Your task to perform on an android device: turn off data saver in the chrome app Image 0: 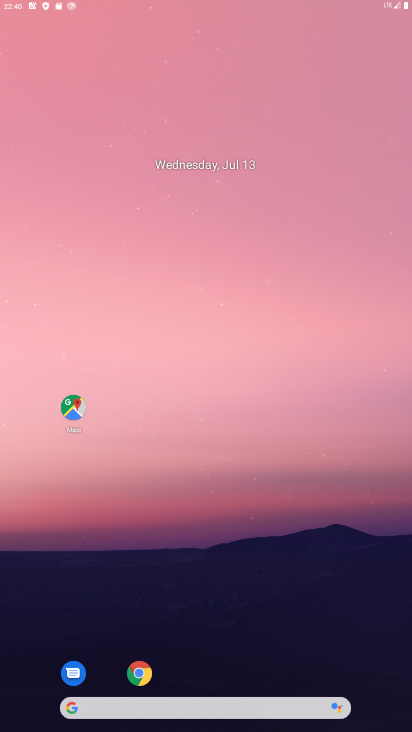
Step 0: click (210, 201)
Your task to perform on an android device: turn off data saver in the chrome app Image 1: 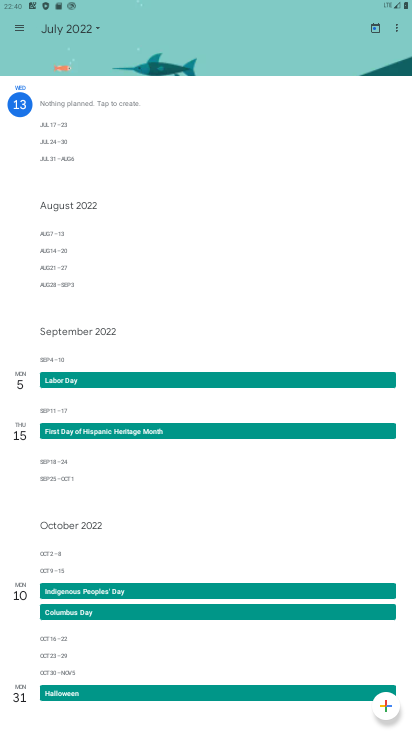
Step 1: press home button
Your task to perform on an android device: turn off data saver in the chrome app Image 2: 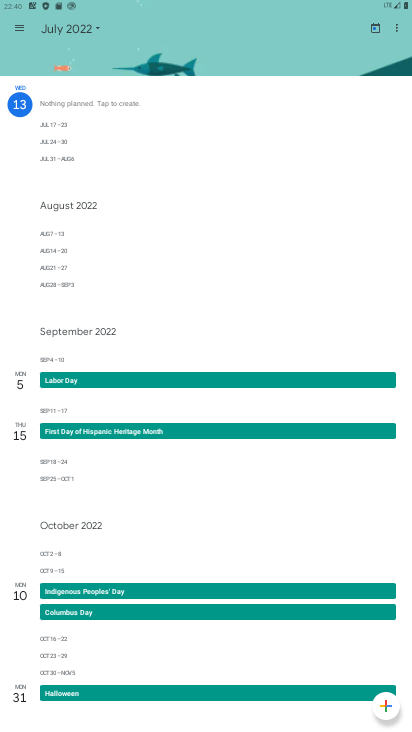
Step 2: press home button
Your task to perform on an android device: turn off data saver in the chrome app Image 3: 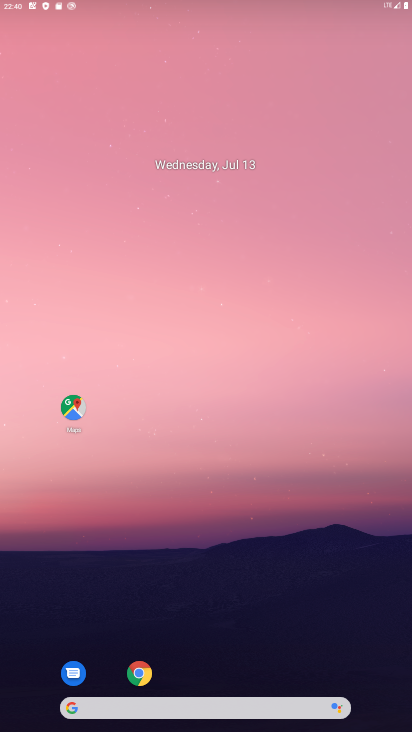
Step 3: drag from (178, 659) to (236, 135)
Your task to perform on an android device: turn off data saver in the chrome app Image 4: 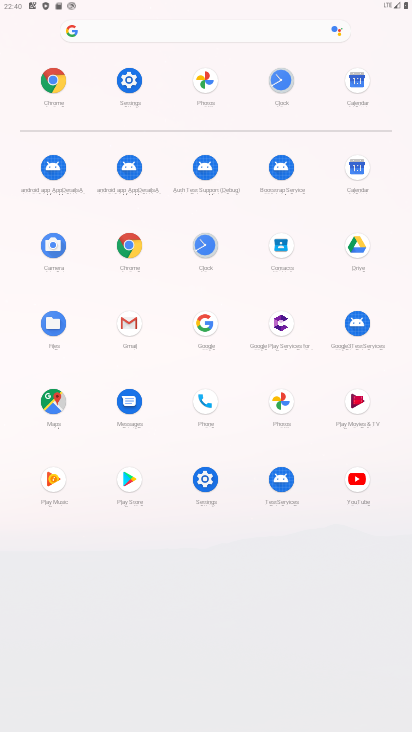
Step 4: click (123, 249)
Your task to perform on an android device: turn off data saver in the chrome app Image 5: 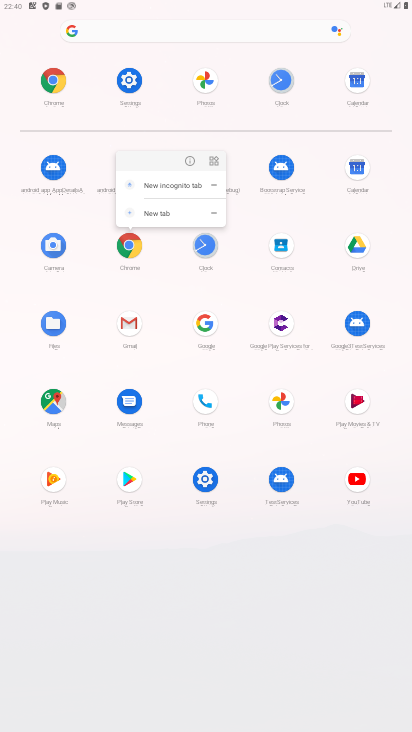
Step 5: click (191, 159)
Your task to perform on an android device: turn off data saver in the chrome app Image 6: 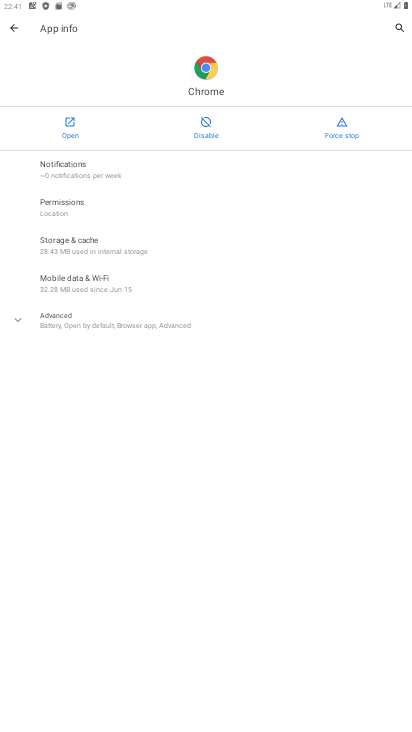
Step 6: click (78, 133)
Your task to perform on an android device: turn off data saver in the chrome app Image 7: 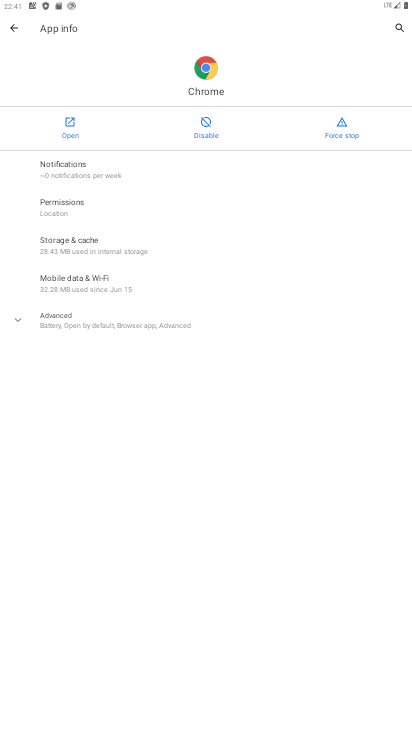
Step 7: click (70, 128)
Your task to perform on an android device: turn off data saver in the chrome app Image 8: 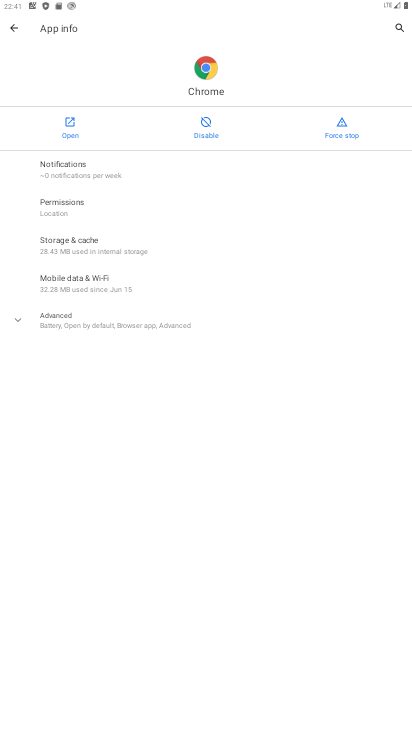
Step 8: click (70, 128)
Your task to perform on an android device: turn off data saver in the chrome app Image 9: 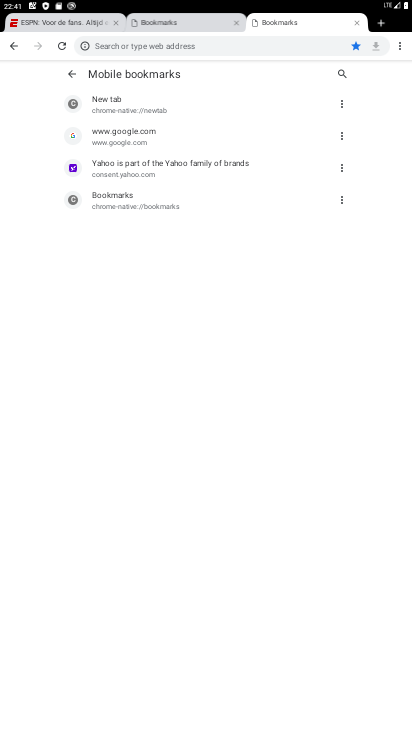
Step 9: drag from (401, 47) to (328, 209)
Your task to perform on an android device: turn off data saver in the chrome app Image 10: 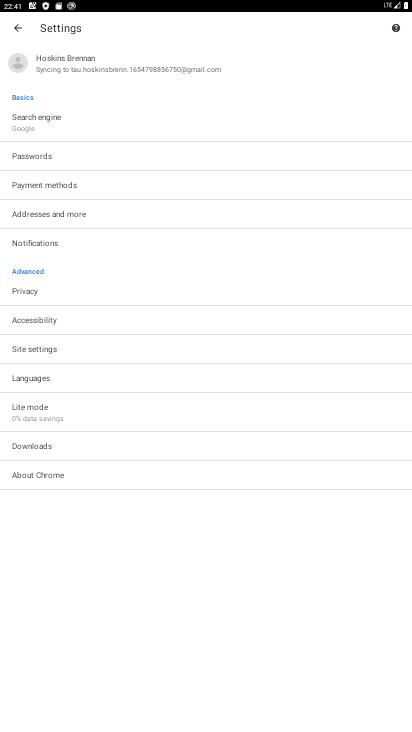
Step 10: click (52, 407)
Your task to perform on an android device: turn off data saver in the chrome app Image 11: 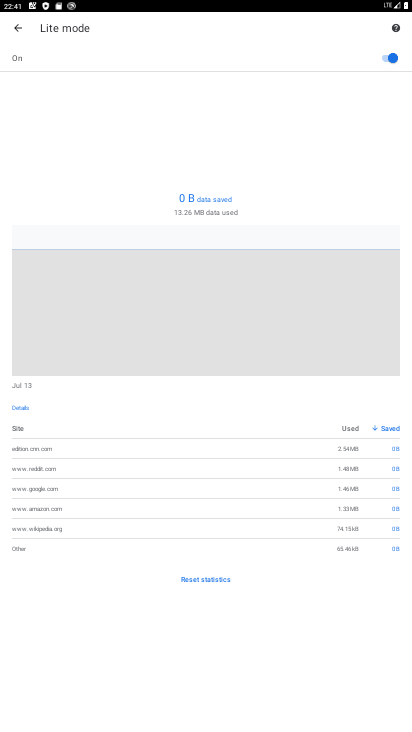
Step 11: drag from (160, 382) to (209, 176)
Your task to perform on an android device: turn off data saver in the chrome app Image 12: 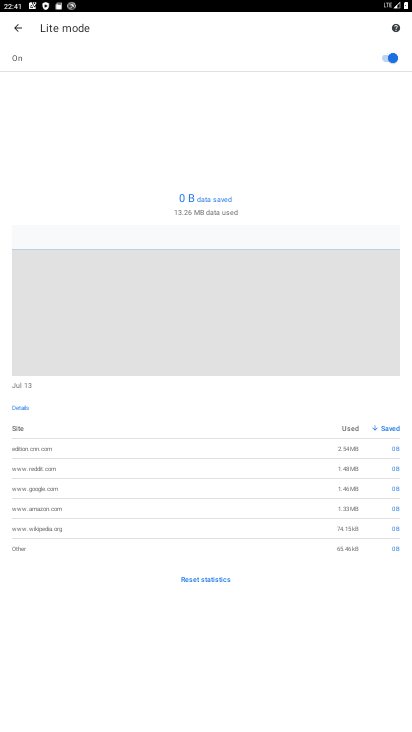
Step 12: click (388, 53)
Your task to perform on an android device: turn off data saver in the chrome app Image 13: 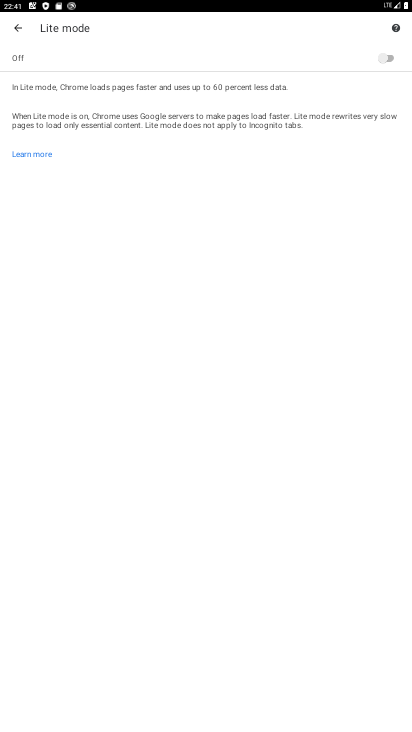
Step 13: task complete